Your task to perform on an android device: Go to eBay Image 0: 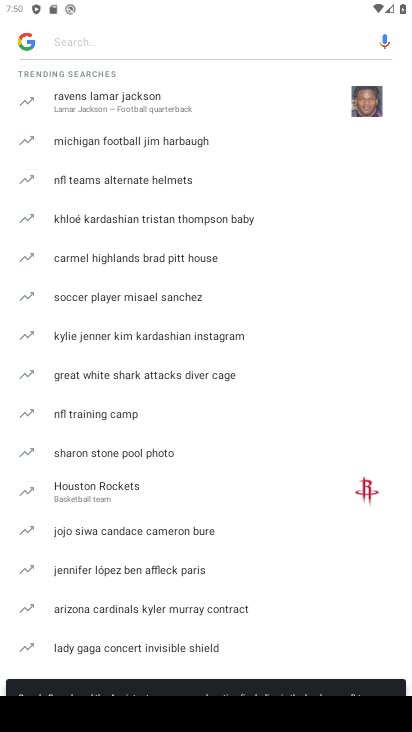
Step 0: press home button
Your task to perform on an android device: Go to eBay Image 1: 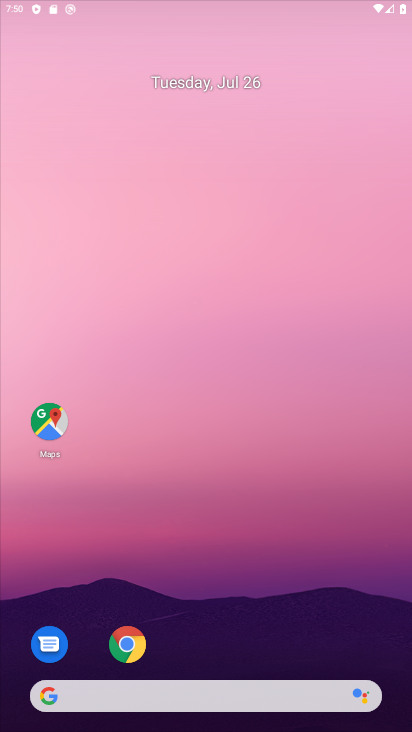
Step 1: drag from (230, 673) to (243, 164)
Your task to perform on an android device: Go to eBay Image 2: 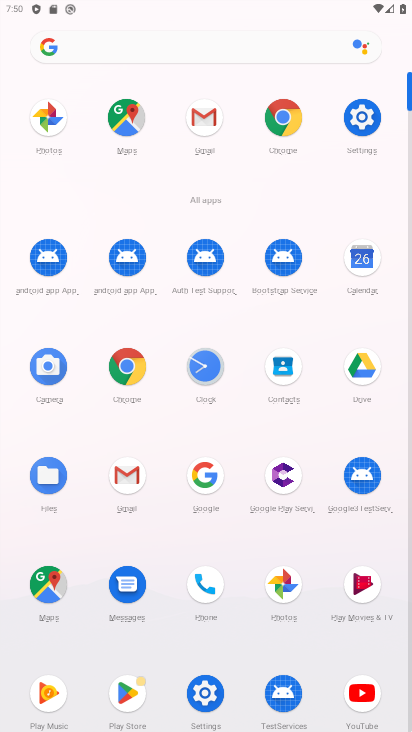
Step 2: click (277, 111)
Your task to perform on an android device: Go to eBay Image 3: 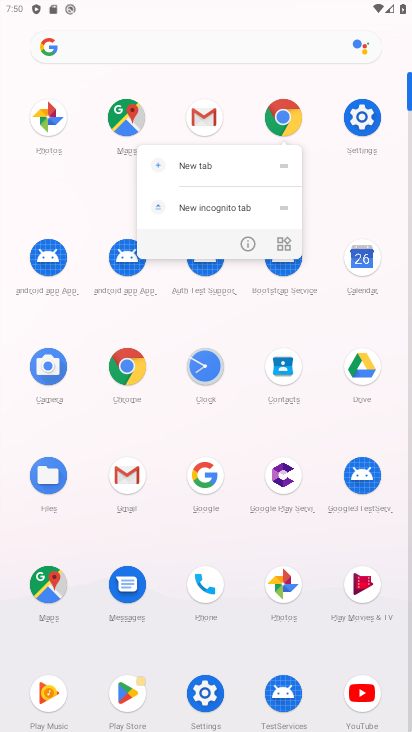
Step 3: click (286, 133)
Your task to perform on an android device: Go to eBay Image 4: 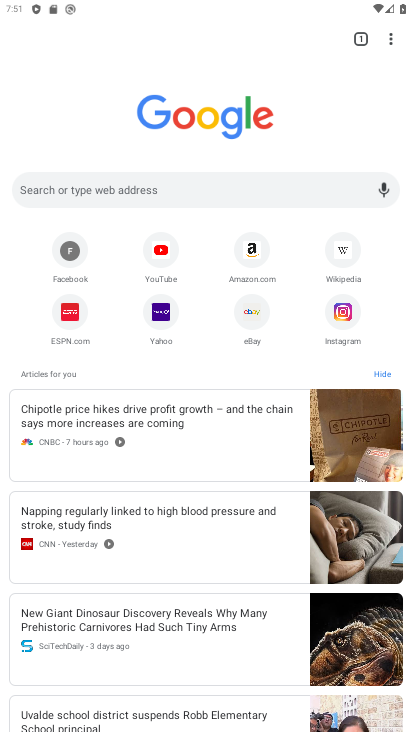
Step 4: click (248, 314)
Your task to perform on an android device: Go to eBay Image 5: 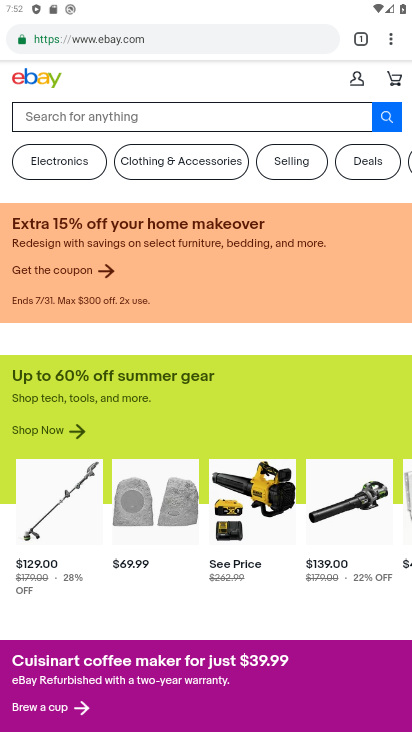
Step 5: task complete